Your task to perform on an android device: Find coffee shops on Maps Image 0: 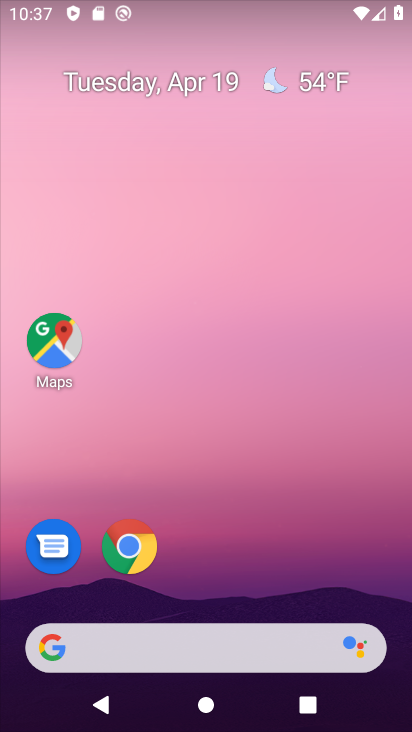
Step 0: click (44, 354)
Your task to perform on an android device: Find coffee shops on Maps Image 1: 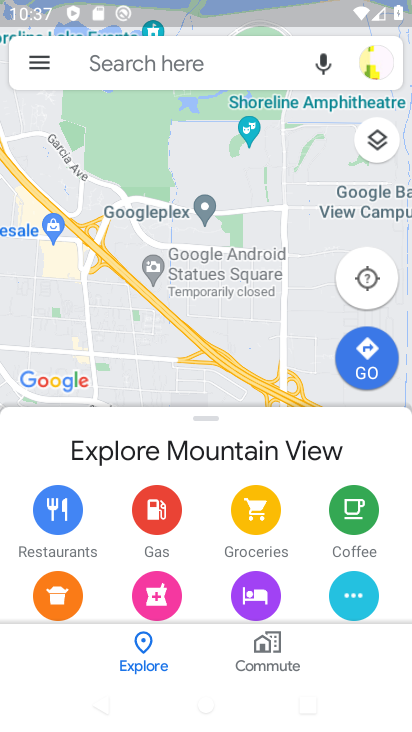
Step 1: click (229, 72)
Your task to perform on an android device: Find coffee shops on Maps Image 2: 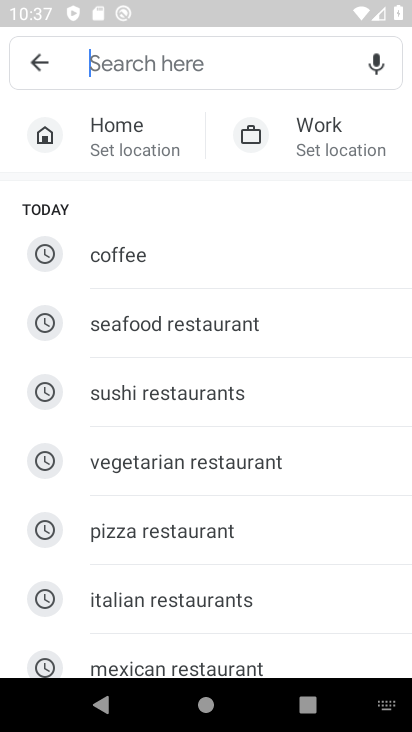
Step 2: click (103, 256)
Your task to perform on an android device: Find coffee shops on Maps Image 3: 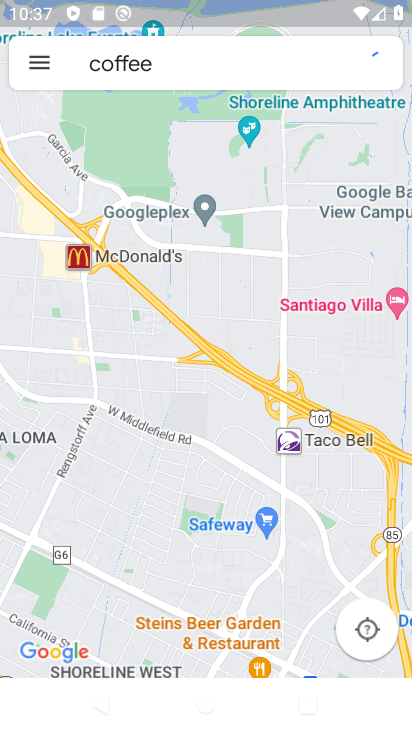
Step 3: task complete